Your task to perform on an android device: Open accessibility settings Image 0: 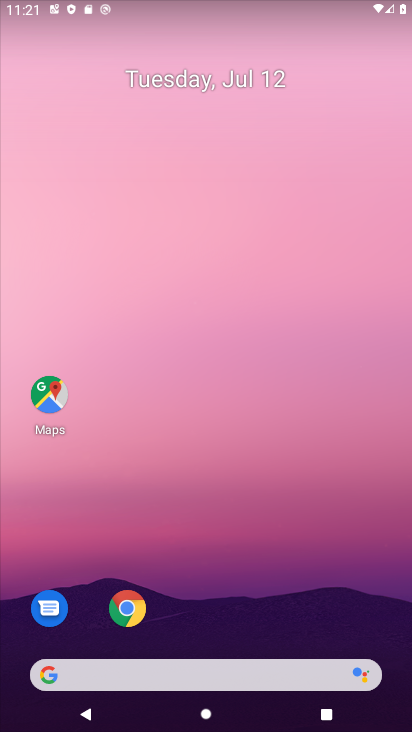
Step 0: drag from (261, 701) to (249, 172)
Your task to perform on an android device: Open accessibility settings Image 1: 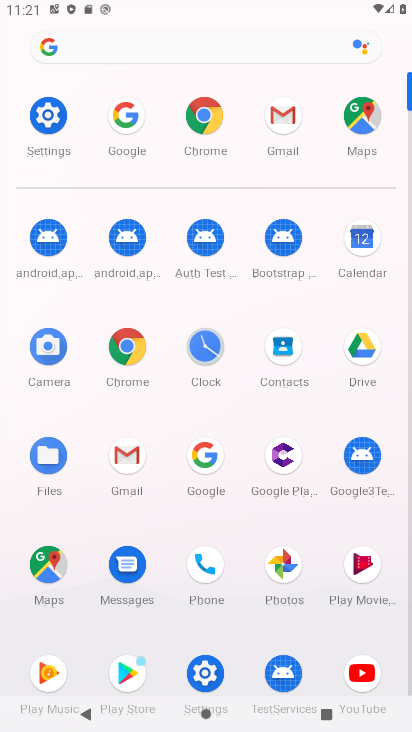
Step 1: click (47, 116)
Your task to perform on an android device: Open accessibility settings Image 2: 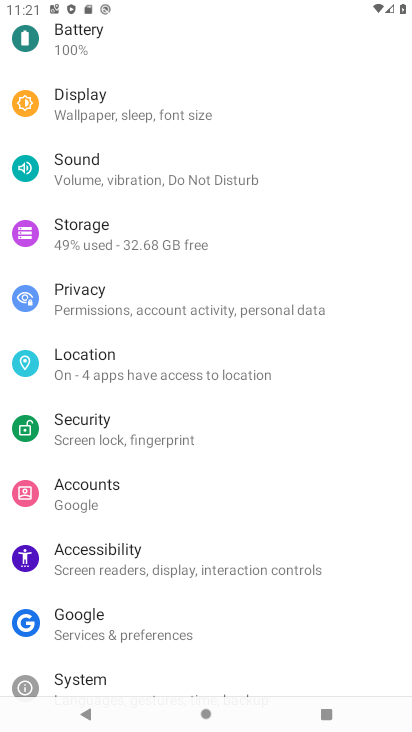
Step 2: click (106, 560)
Your task to perform on an android device: Open accessibility settings Image 3: 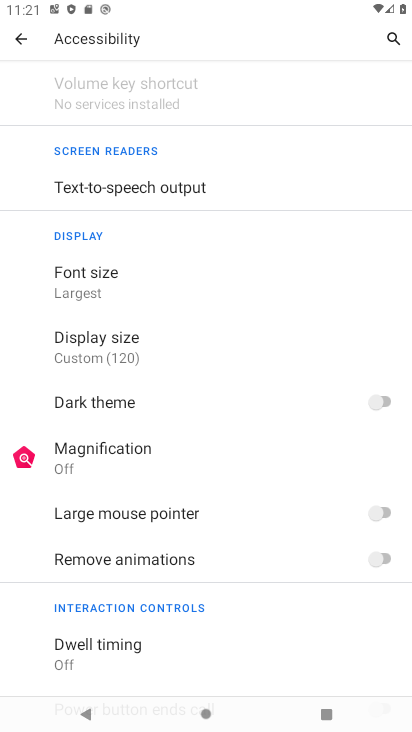
Step 3: task complete